Your task to perform on an android device: Open ESPN.com Image 0: 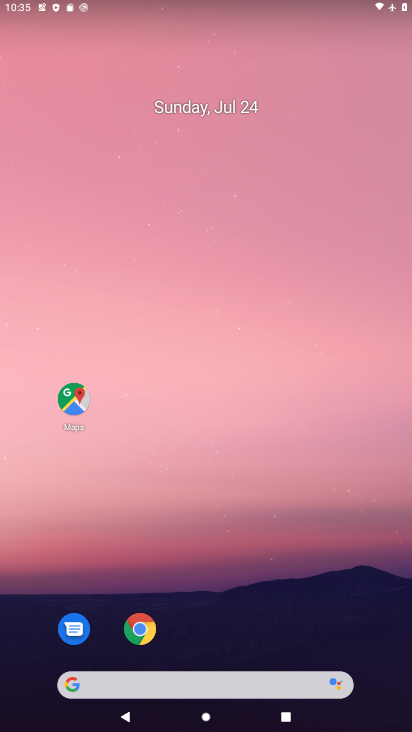
Step 0: click (220, 683)
Your task to perform on an android device: Open ESPN.com Image 1: 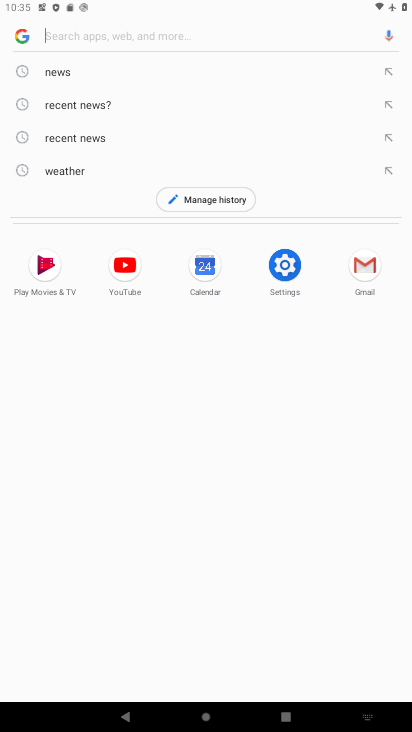
Step 1: type "espn.com"
Your task to perform on an android device: Open ESPN.com Image 2: 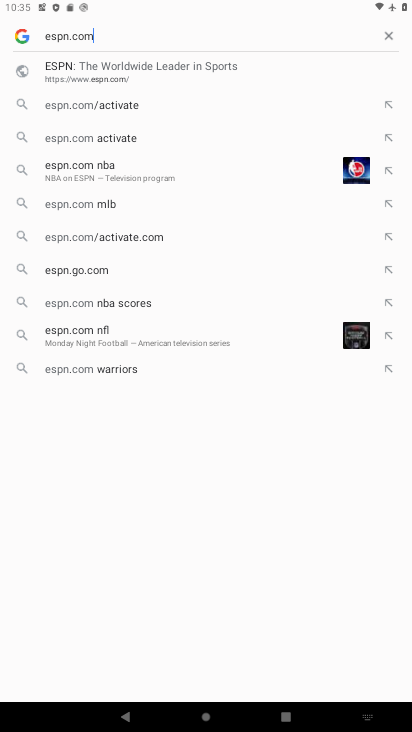
Step 2: click (137, 75)
Your task to perform on an android device: Open ESPN.com Image 3: 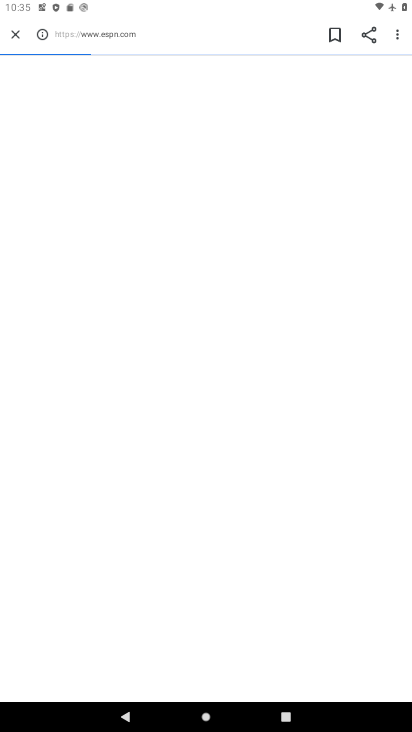
Step 3: task complete